Your task to perform on an android device: Open settings Image 0: 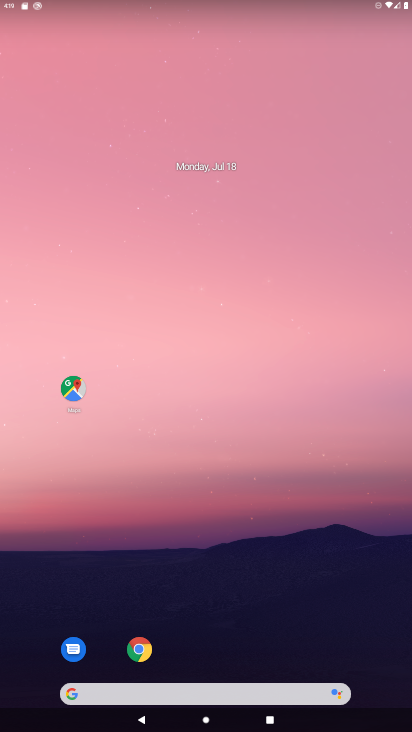
Step 0: drag from (239, 659) to (279, 132)
Your task to perform on an android device: Open settings Image 1: 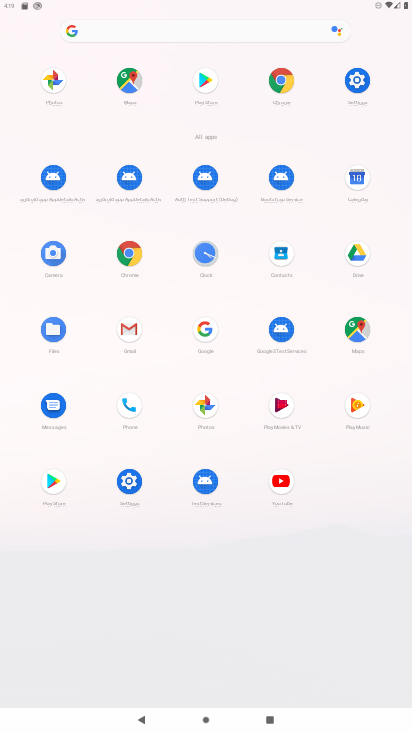
Step 1: click (120, 489)
Your task to perform on an android device: Open settings Image 2: 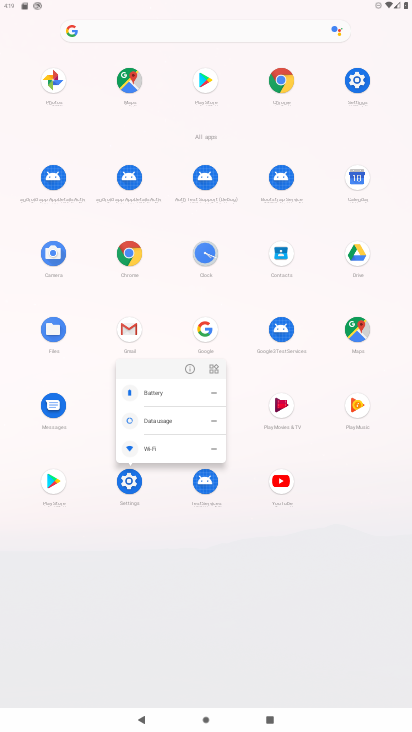
Step 2: click (127, 483)
Your task to perform on an android device: Open settings Image 3: 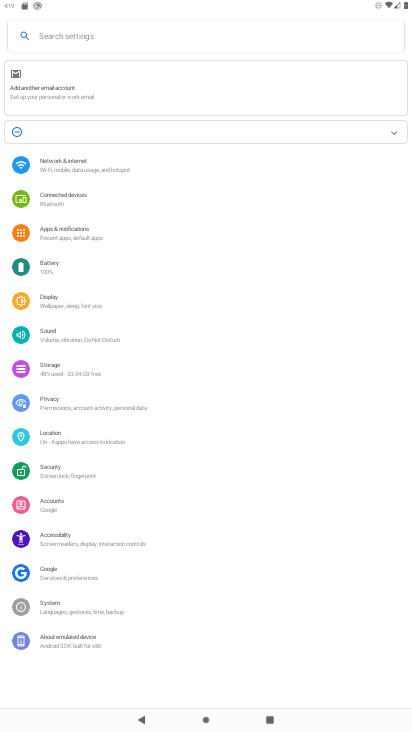
Step 3: task complete